Your task to perform on an android device: Open calendar and show me the third week of next month Image 0: 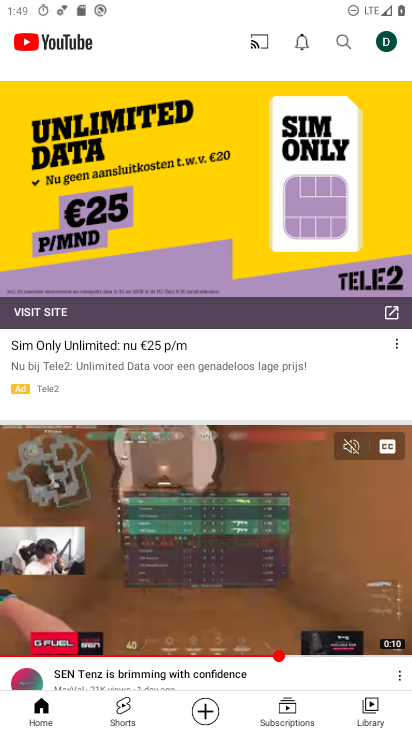
Step 0: drag from (198, 668) to (244, 160)
Your task to perform on an android device: Open calendar and show me the third week of next month Image 1: 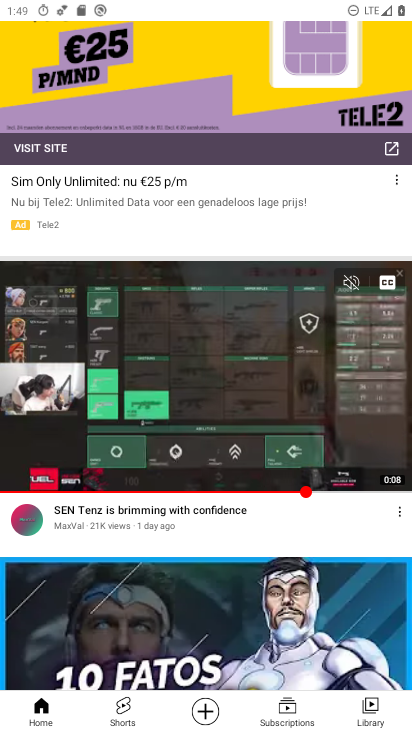
Step 1: drag from (199, 584) to (254, 391)
Your task to perform on an android device: Open calendar and show me the third week of next month Image 2: 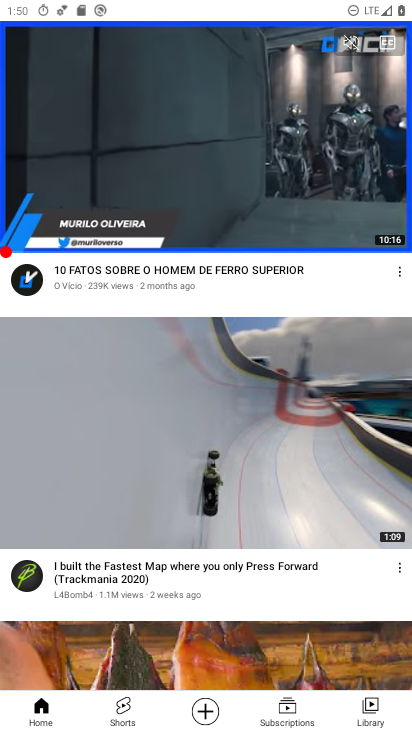
Step 2: drag from (222, 560) to (276, 268)
Your task to perform on an android device: Open calendar and show me the third week of next month Image 3: 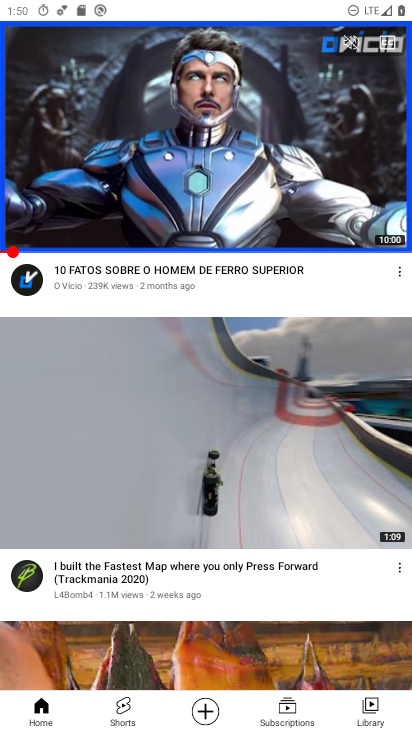
Step 3: drag from (225, 454) to (360, 27)
Your task to perform on an android device: Open calendar and show me the third week of next month Image 4: 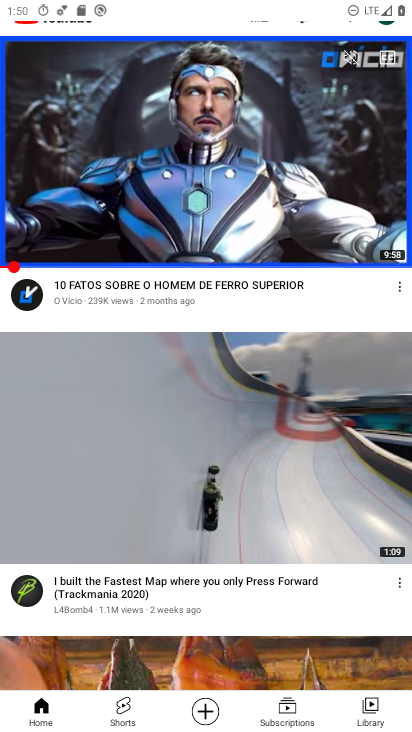
Step 4: drag from (167, 567) to (227, 184)
Your task to perform on an android device: Open calendar and show me the third week of next month Image 5: 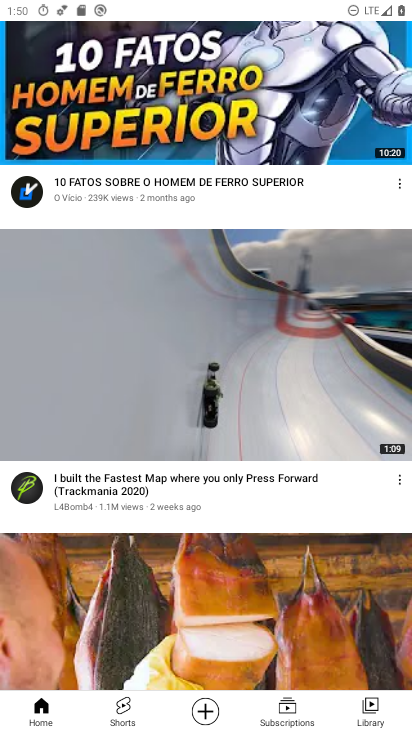
Step 5: drag from (226, 398) to (301, 134)
Your task to perform on an android device: Open calendar and show me the third week of next month Image 6: 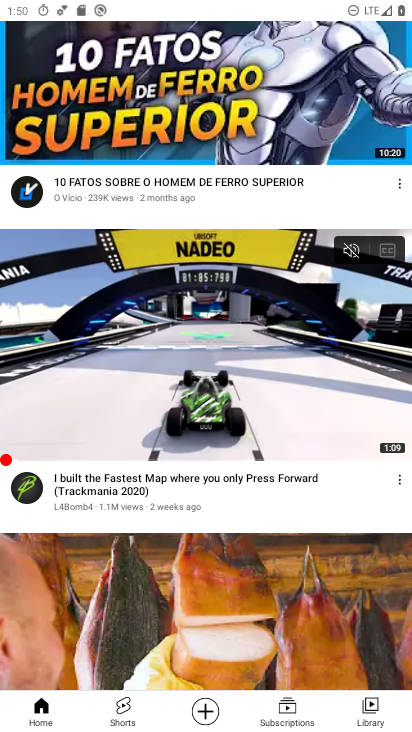
Step 6: drag from (208, 680) to (329, 185)
Your task to perform on an android device: Open calendar and show me the third week of next month Image 7: 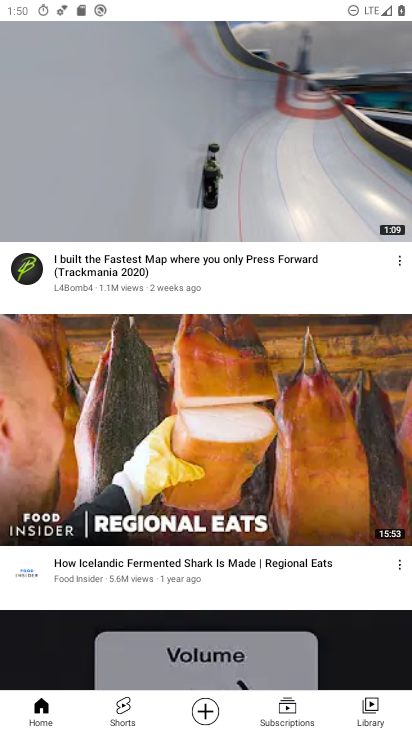
Step 7: drag from (248, 304) to (291, 155)
Your task to perform on an android device: Open calendar and show me the third week of next month Image 8: 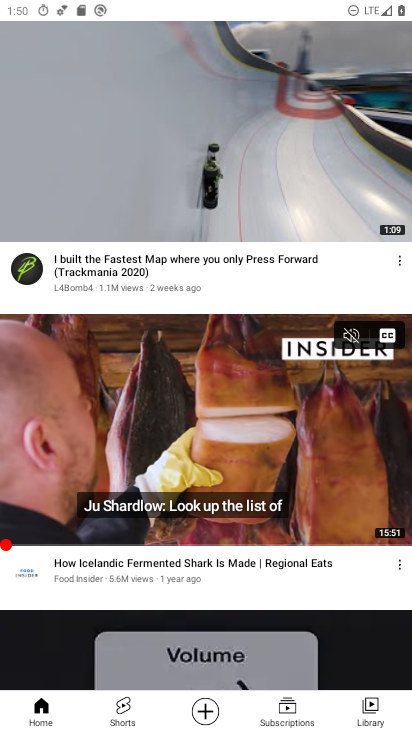
Step 8: drag from (257, 573) to (341, 203)
Your task to perform on an android device: Open calendar and show me the third week of next month Image 9: 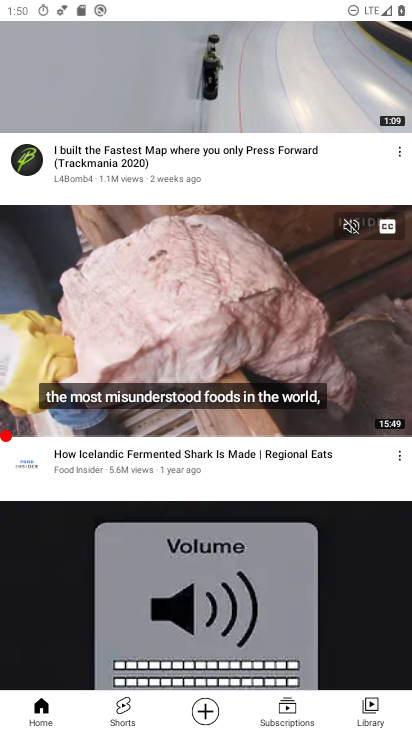
Step 9: drag from (239, 606) to (295, 269)
Your task to perform on an android device: Open calendar and show me the third week of next month Image 10: 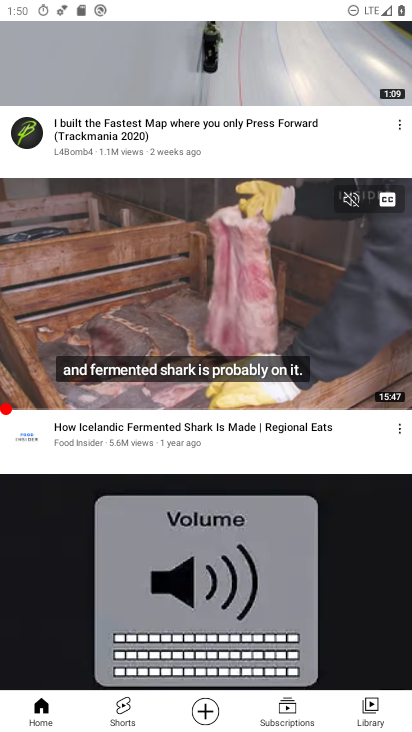
Step 10: press home button
Your task to perform on an android device: Open calendar and show me the third week of next month Image 11: 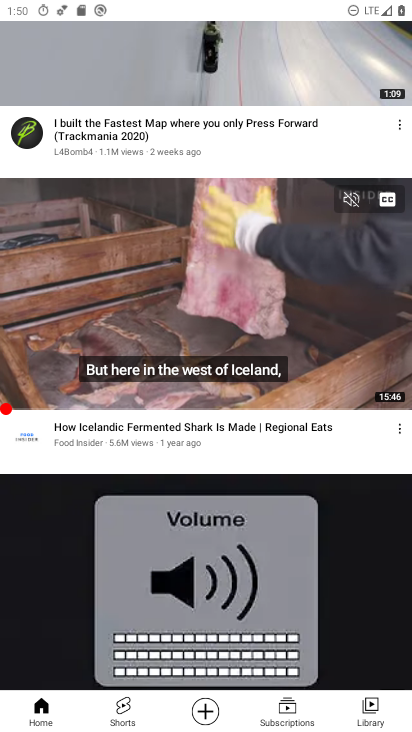
Step 11: drag from (235, 438) to (275, 233)
Your task to perform on an android device: Open calendar and show me the third week of next month Image 12: 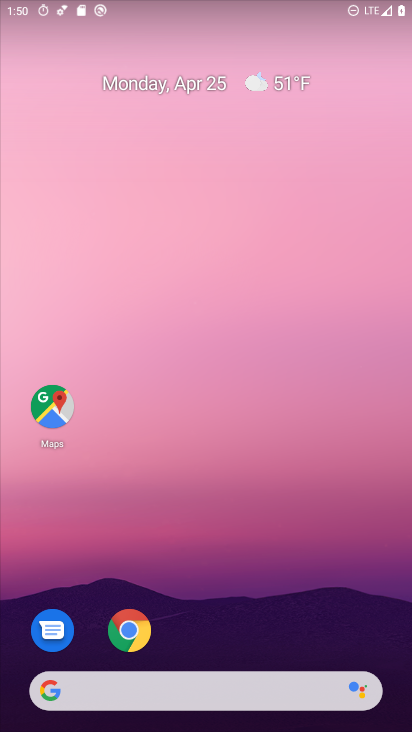
Step 12: drag from (200, 627) to (242, 147)
Your task to perform on an android device: Open calendar and show me the third week of next month Image 13: 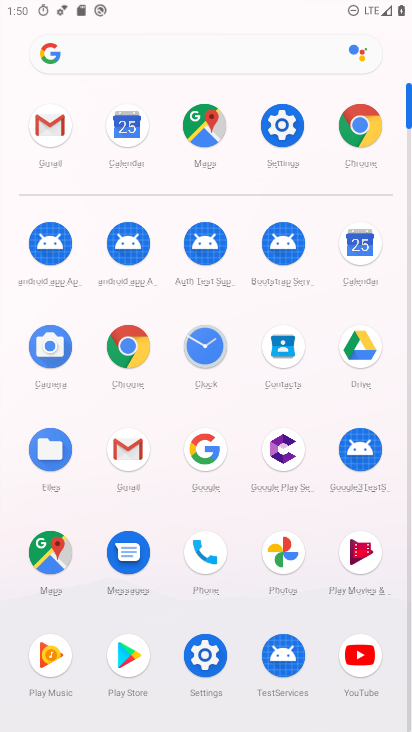
Step 13: click (348, 252)
Your task to perform on an android device: Open calendar and show me the third week of next month Image 14: 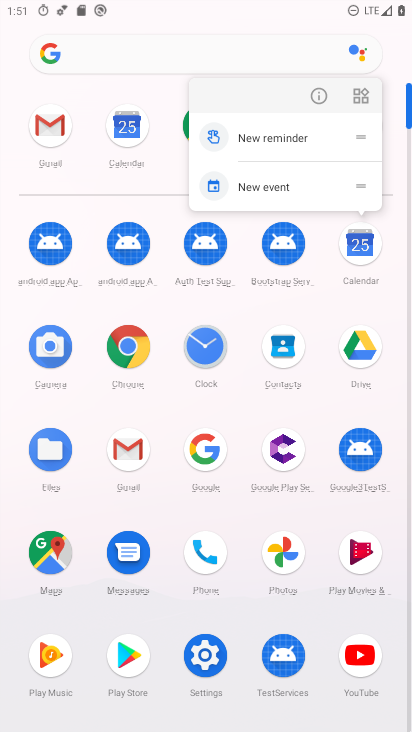
Step 14: click (319, 88)
Your task to perform on an android device: Open calendar and show me the third week of next month Image 15: 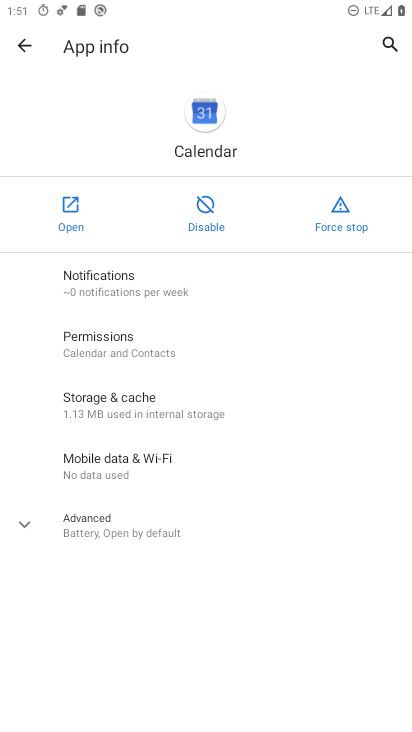
Step 15: click (84, 194)
Your task to perform on an android device: Open calendar and show me the third week of next month Image 16: 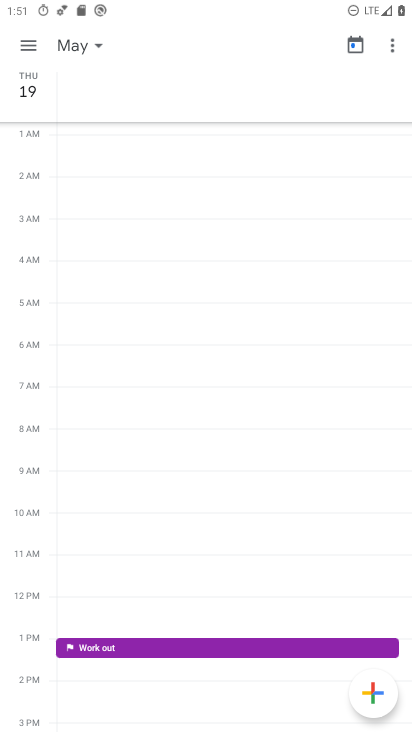
Step 16: drag from (191, 583) to (269, 213)
Your task to perform on an android device: Open calendar and show me the third week of next month Image 17: 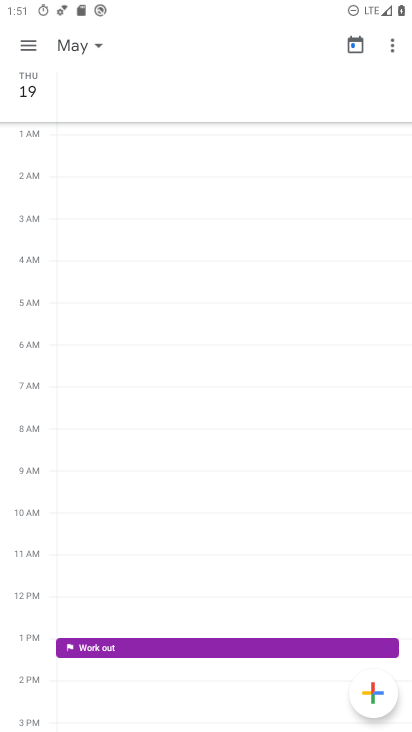
Step 17: drag from (163, 664) to (239, 213)
Your task to perform on an android device: Open calendar and show me the third week of next month Image 18: 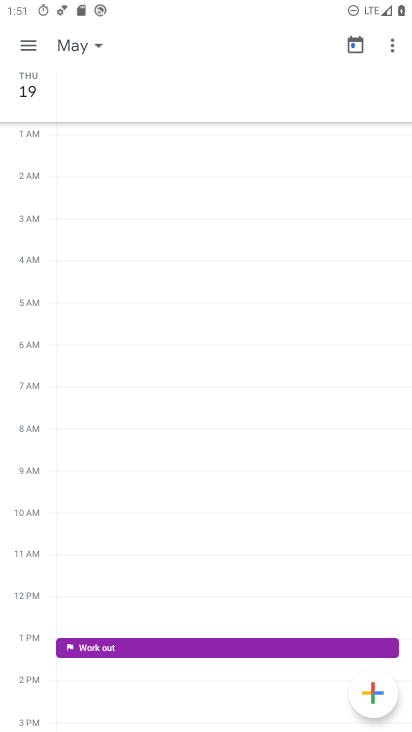
Step 18: drag from (188, 679) to (226, 259)
Your task to perform on an android device: Open calendar and show me the third week of next month Image 19: 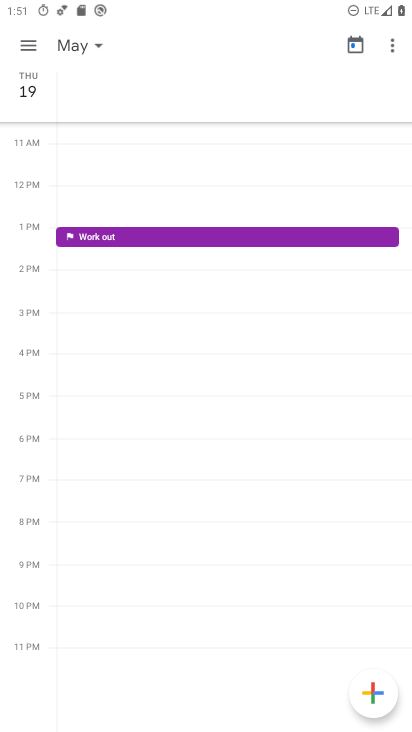
Step 19: click (91, 39)
Your task to perform on an android device: Open calendar and show me the third week of next month Image 20: 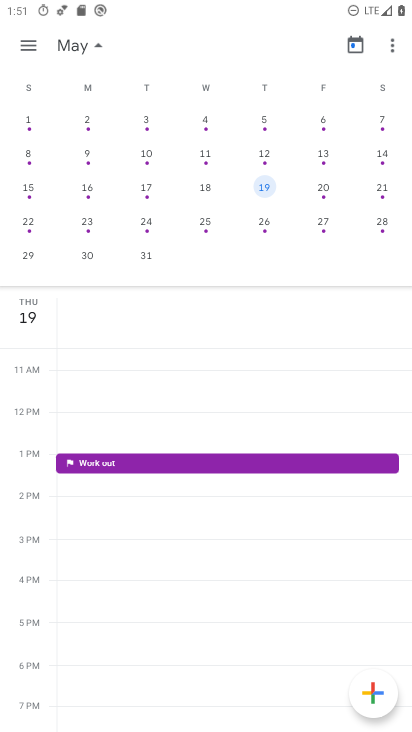
Step 20: click (206, 181)
Your task to perform on an android device: Open calendar and show me the third week of next month Image 21: 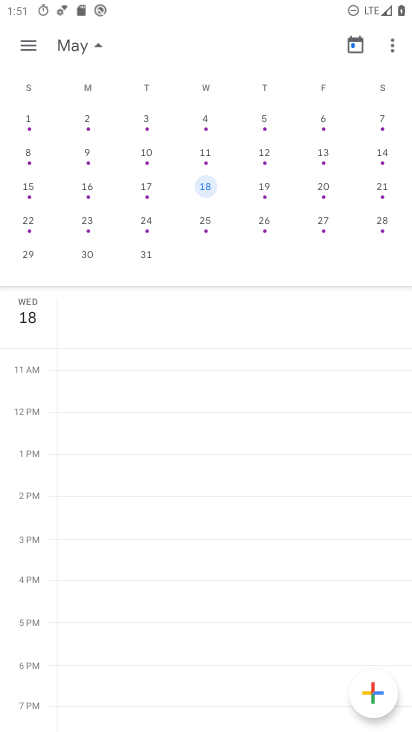
Step 21: drag from (213, 542) to (259, 284)
Your task to perform on an android device: Open calendar and show me the third week of next month Image 22: 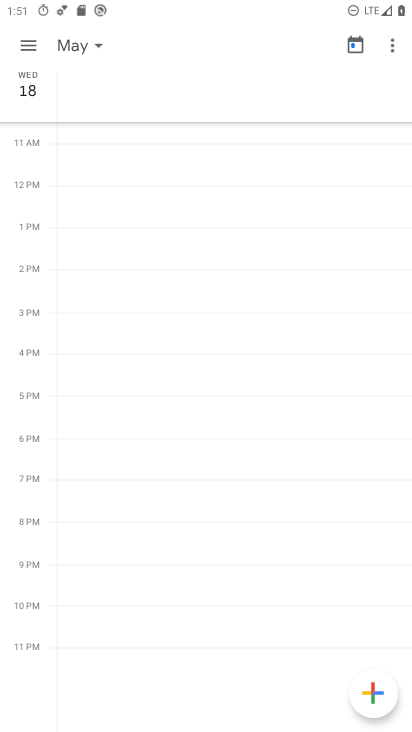
Step 22: drag from (207, 539) to (286, 218)
Your task to perform on an android device: Open calendar and show me the third week of next month Image 23: 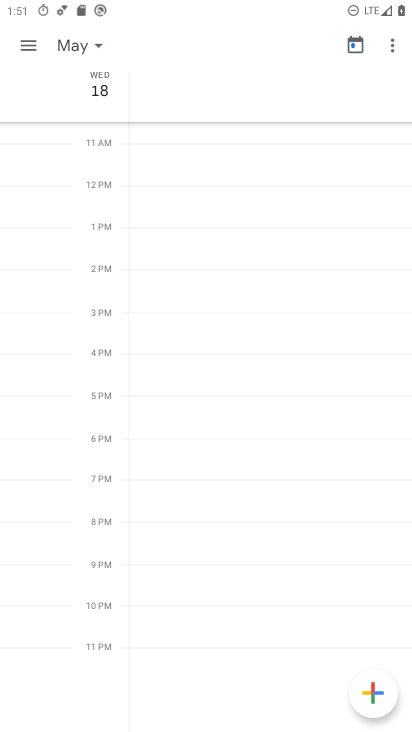
Step 23: drag from (246, 262) to (285, 680)
Your task to perform on an android device: Open calendar and show me the third week of next month Image 24: 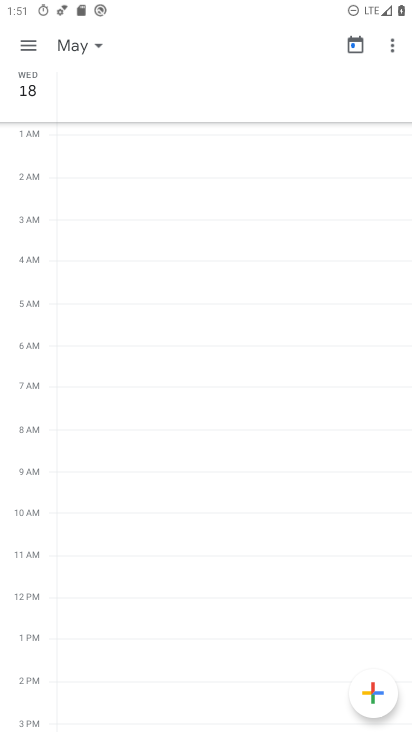
Step 24: click (91, 46)
Your task to perform on an android device: Open calendar and show me the third week of next month Image 25: 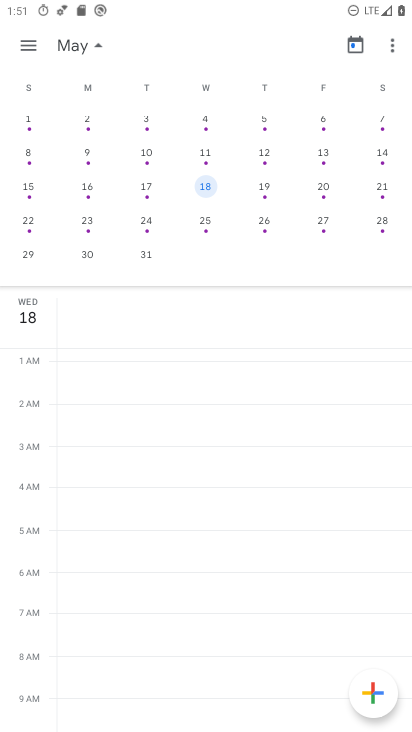
Step 25: click (320, 193)
Your task to perform on an android device: Open calendar and show me the third week of next month Image 26: 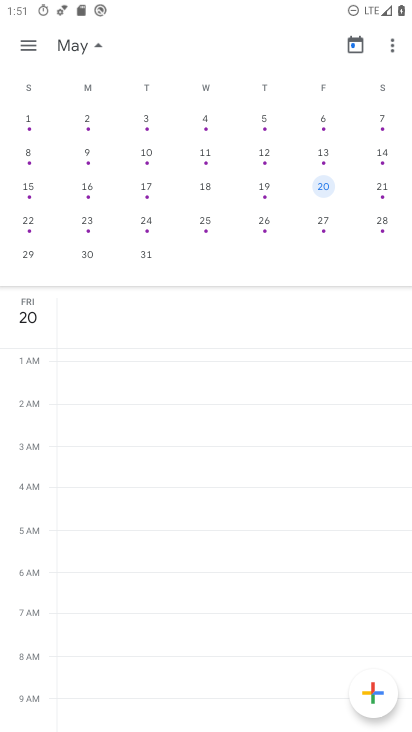
Step 26: task complete